Your task to perform on an android device: Is it going to rain tomorrow? Image 0: 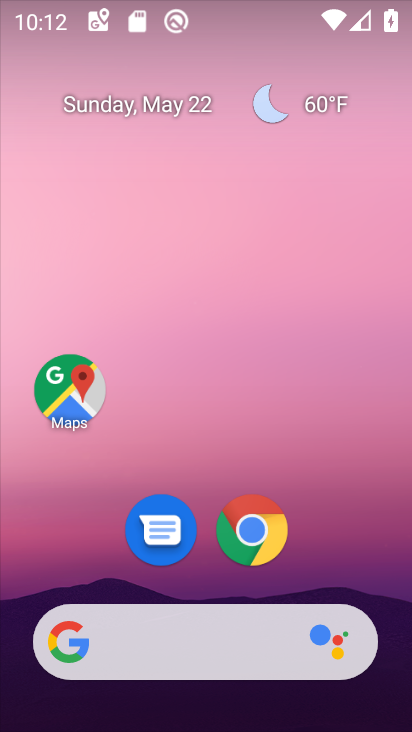
Step 0: click (301, 104)
Your task to perform on an android device: Is it going to rain tomorrow? Image 1: 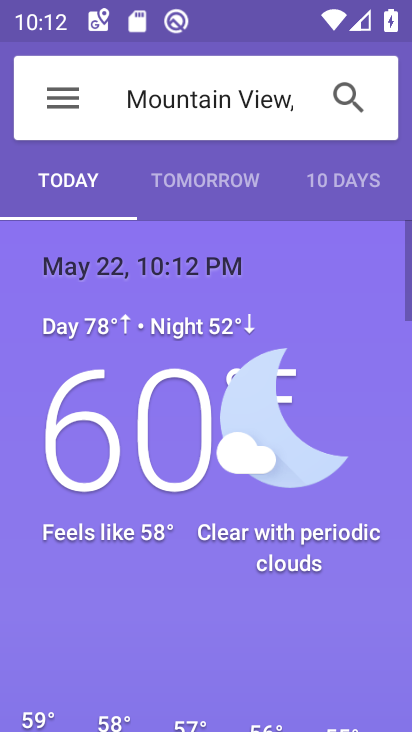
Step 1: click (193, 180)
Your task to perform on an android device: Is it going to rain tomorrow? Image 2: 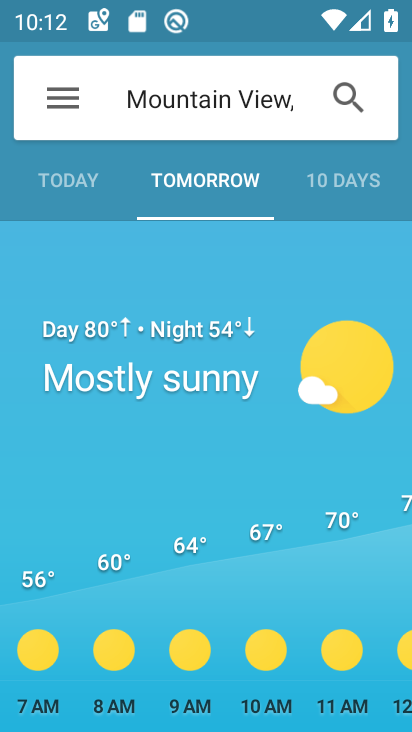
Step 2: task complete